Your task to perform on an android device: turn notification dots off Image 0: 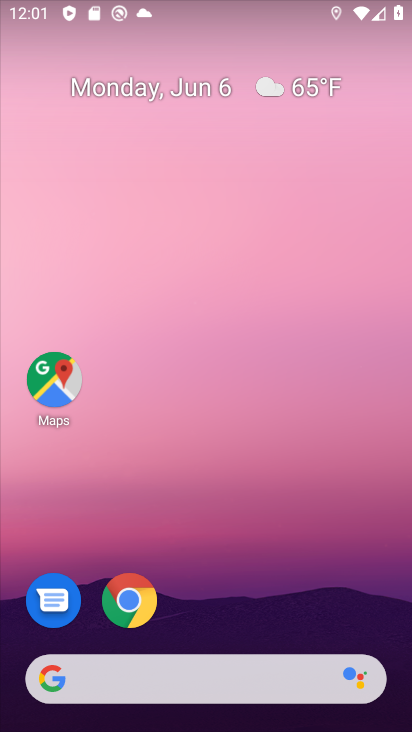
Step 0: drag from (397, 687) to (353, 155)
Your task to perform on an android device: turn notification dots off Image 1: 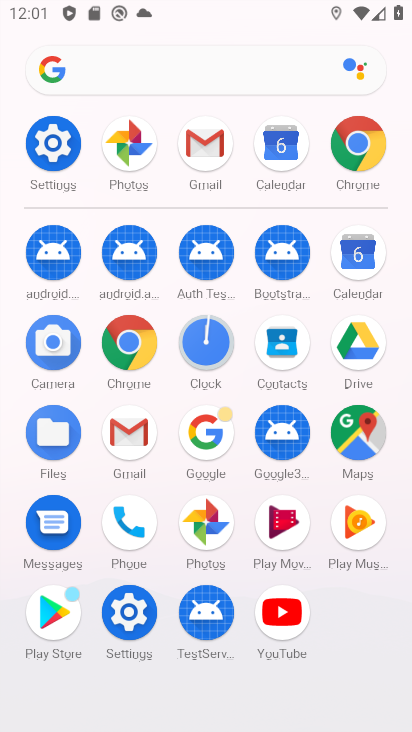
Step 1: click (54, 135)
Your task to perform on an android device: turn notification dots off Image 2: 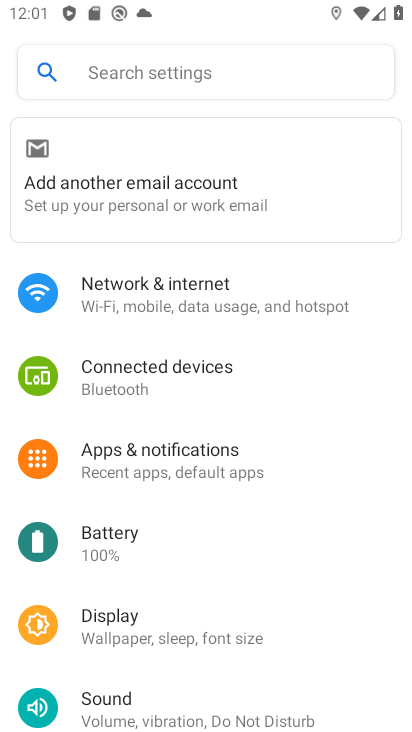
Step 2: click (168, 451)
Your task to perform on an android device: turn notification dots off Image 3: 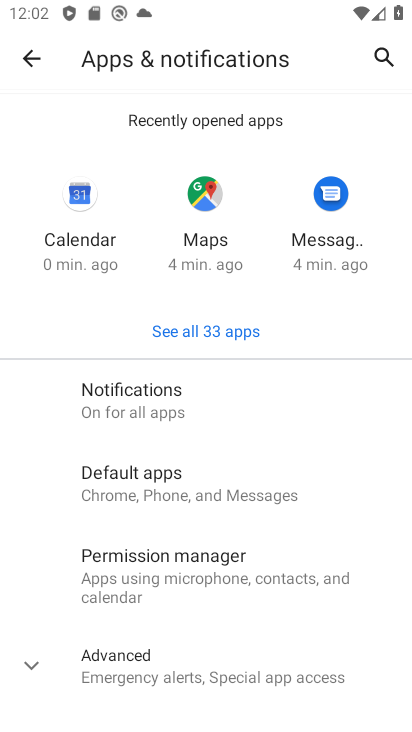
Step 3: drag from (287, 639) to (288, 297)
Your task to perform on an android device: turn notification dots off Image 4: 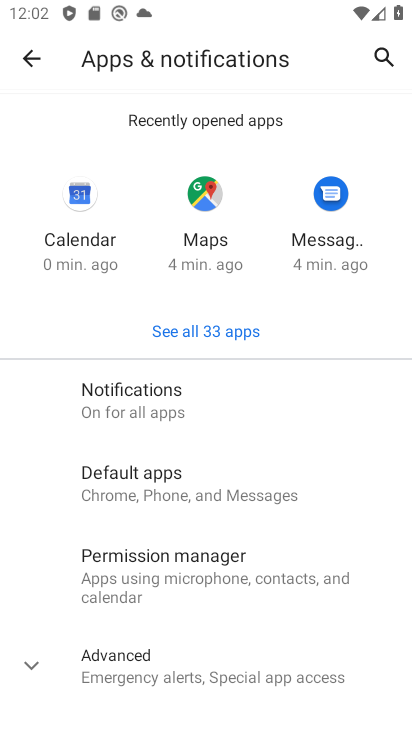
Step 4: click (148, 397)
Your task to perform on an android device: turn notification dots off Image 5: 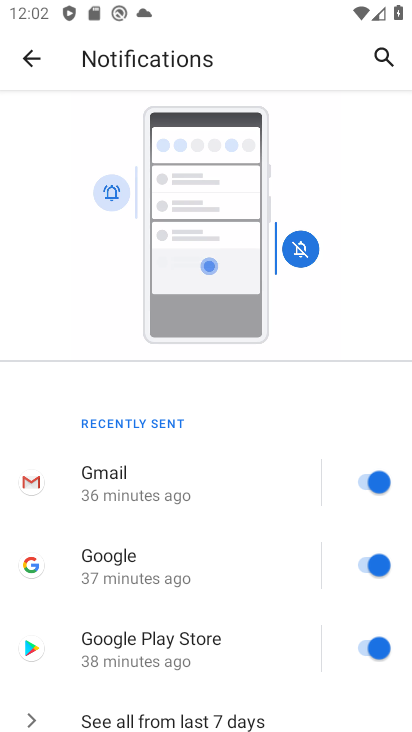
Step 5: drag from (277, 686) to (261, 48)
Your task to perform on an android device: turn notification dots off Image 6: 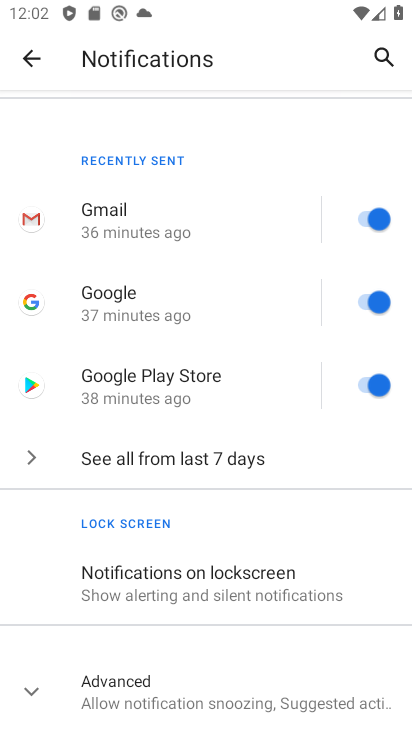
Step 6: click (39, 687)
Your task to perform on an android device: turn notification dots off Image 7: 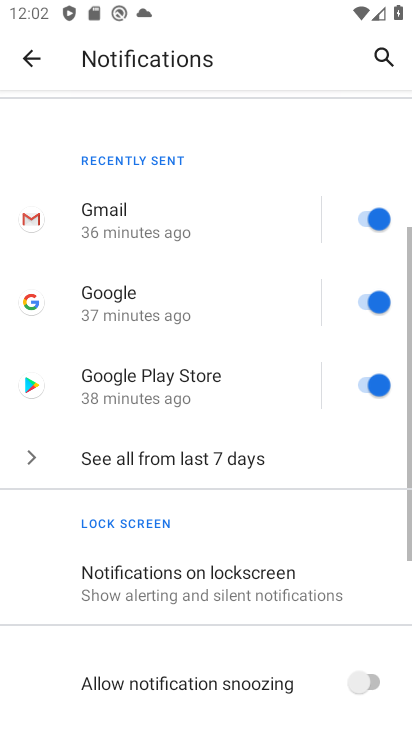
Step 7: drag from (268, 625) to (255, 161)
Your task to perform on an android device: turn notification dots off Image 8: 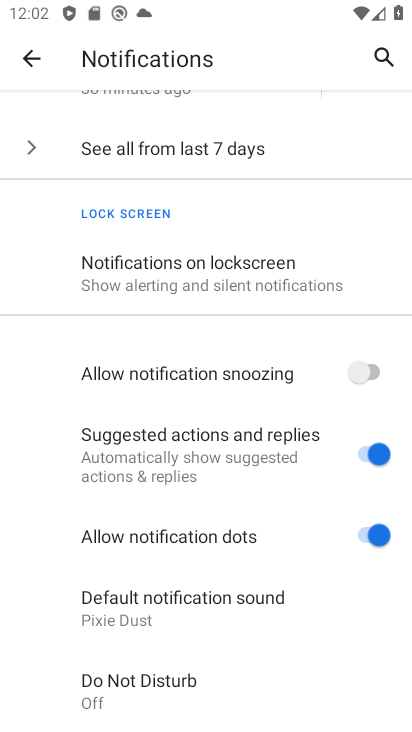
Step 8: click (357, 532)
Your task to perform on an android device: turn notification dots off Image 9: 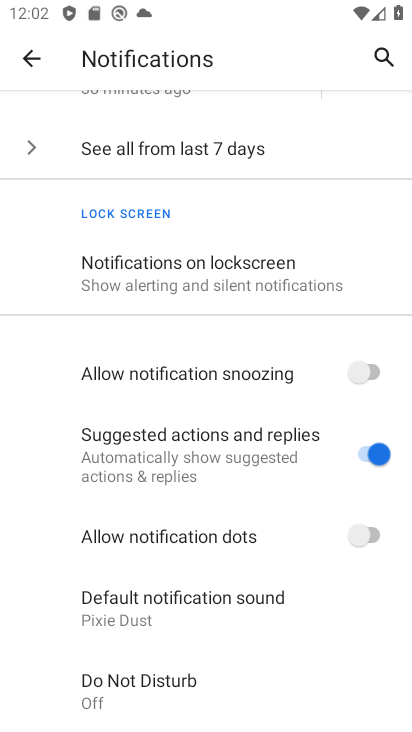
Step 9: task complete